Your task to perform on an android device: Go to location settings Image 0: 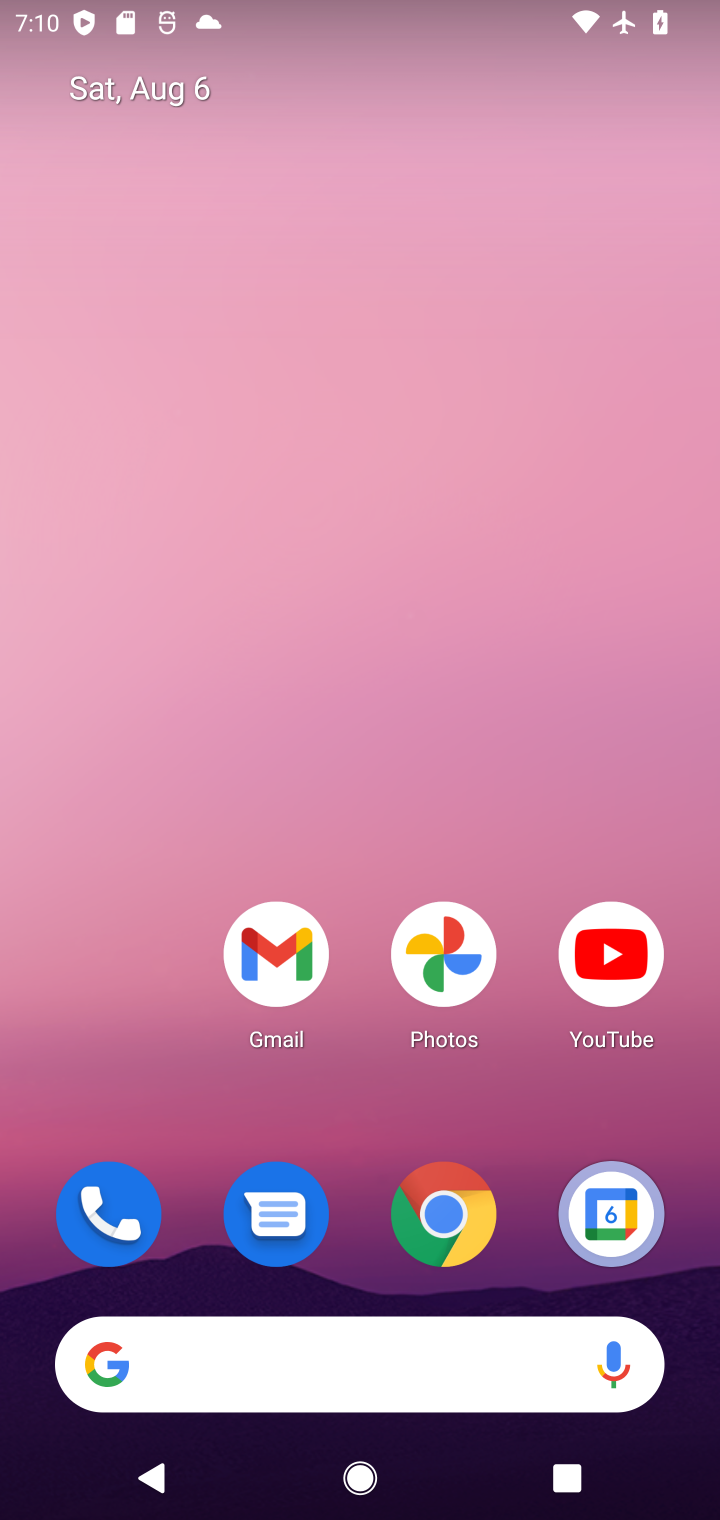
Step 0: drag from (360, 883) to (25, 1372)
Your task to perform on an android device: Go to location settings Image 1: 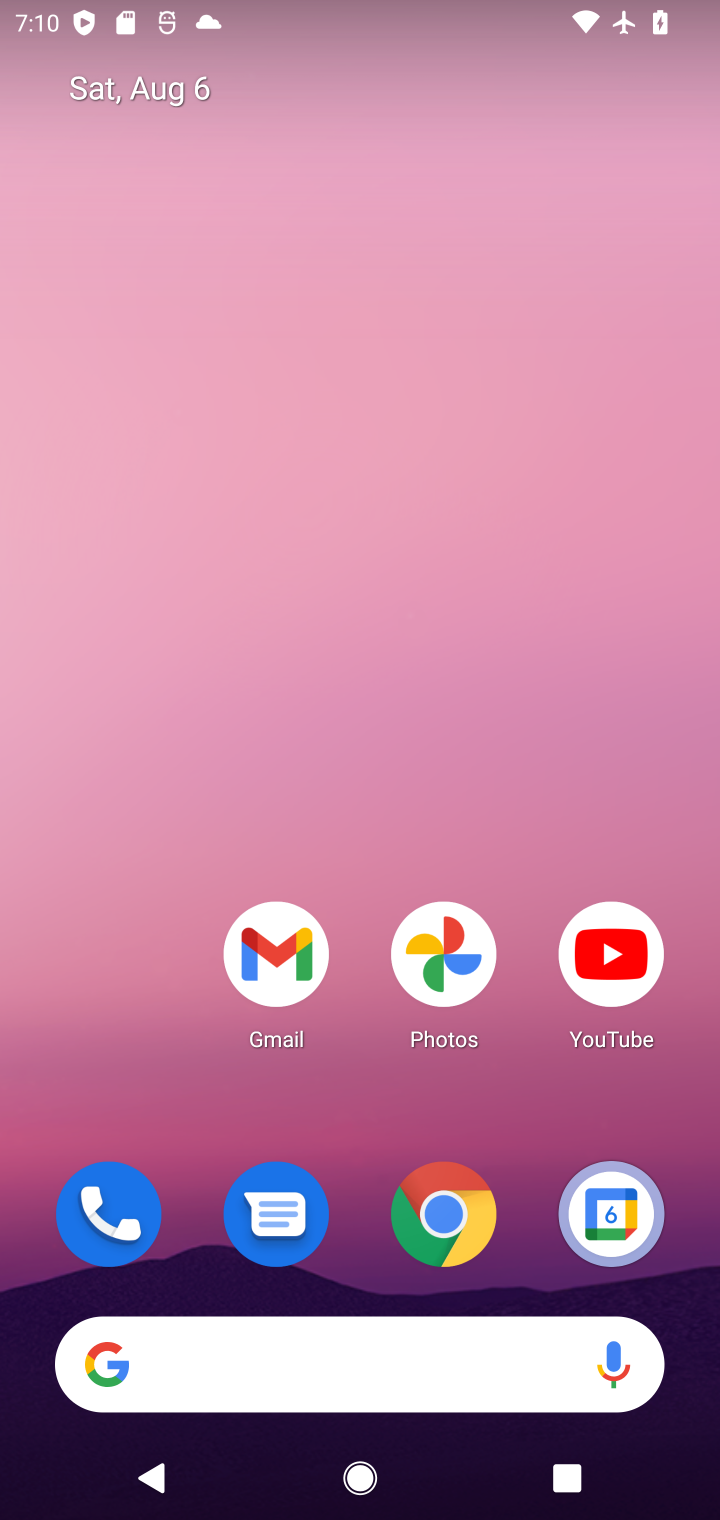
Step 1: drag from (333, 1258) to (185, 24)
Your task to perform on an android device: Go to location settings Image 2: 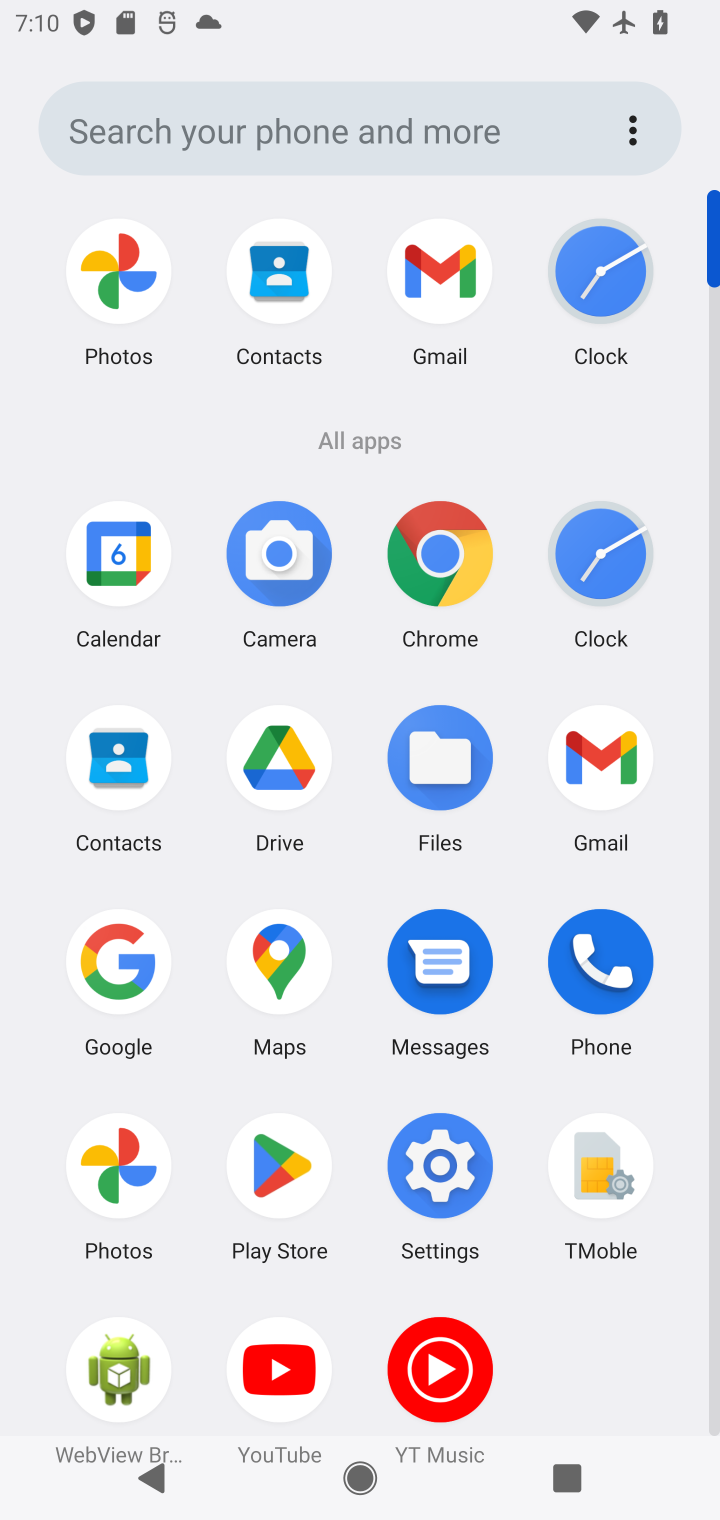
Step 2: click (441, 1141)
Your task to perform on an android device: Go to location settings Image 3: 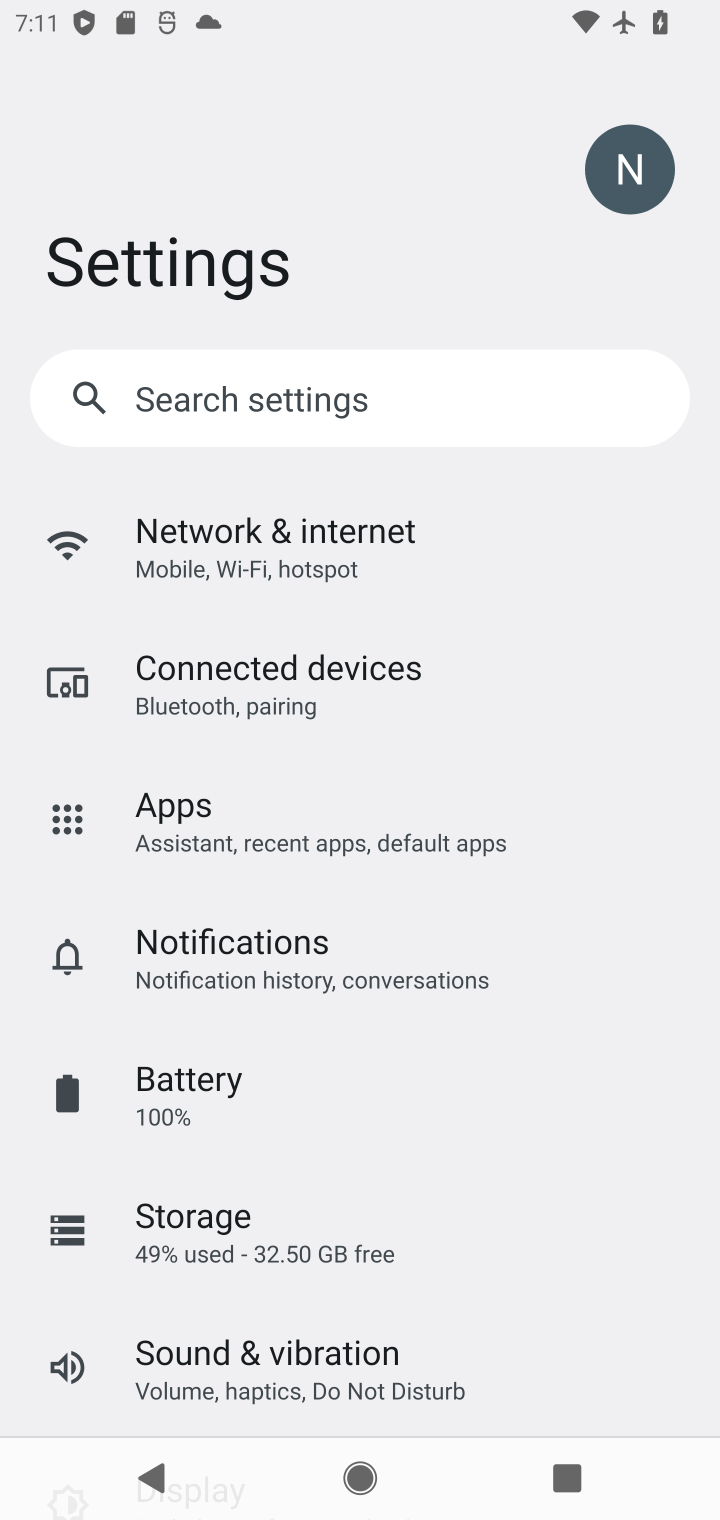
Step 3: drag from (383, 1277) to (417, 849)
Your task to perform on an android device: Go to location settings Image 4: 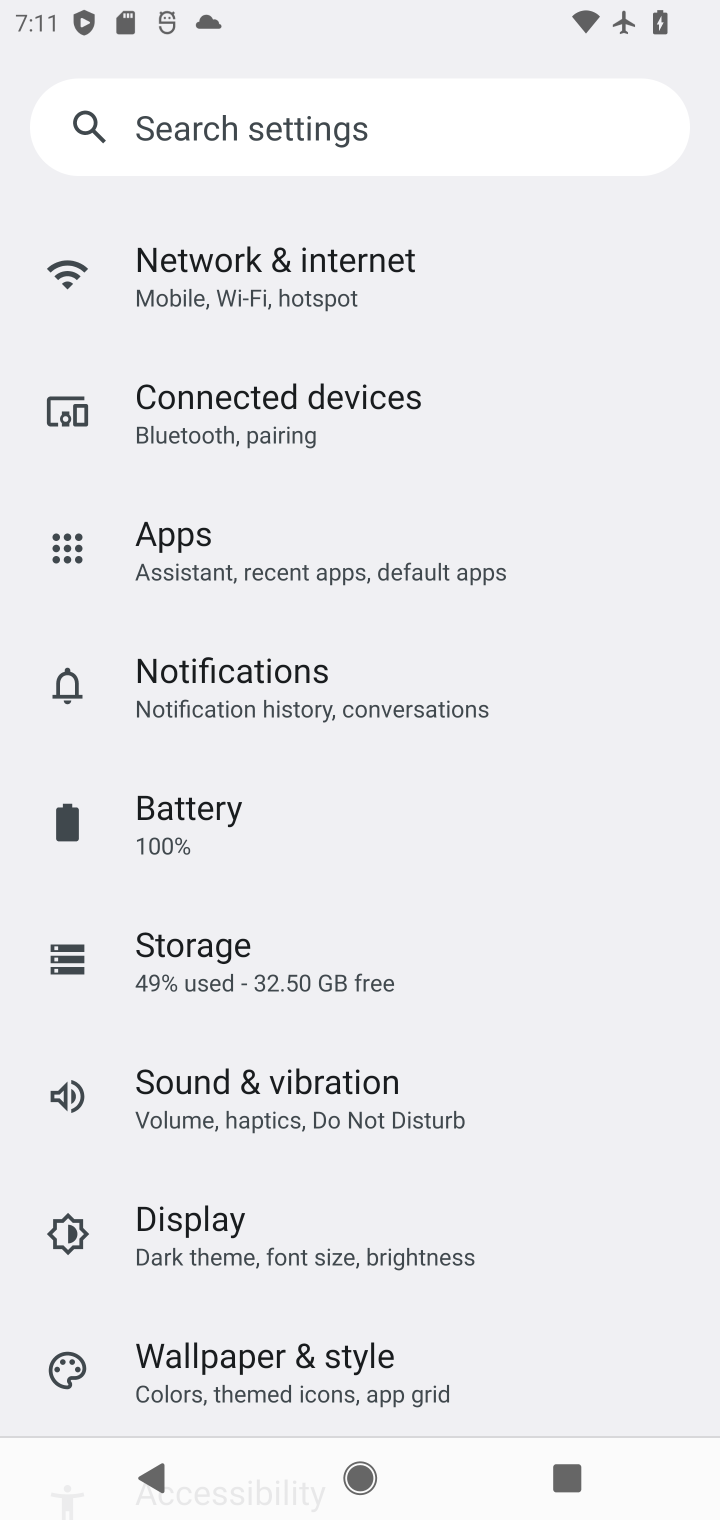
Step 4: drag from (361, 1185) to (378, 668)
Your task to perform on an android device: Go to location settings Image 5: 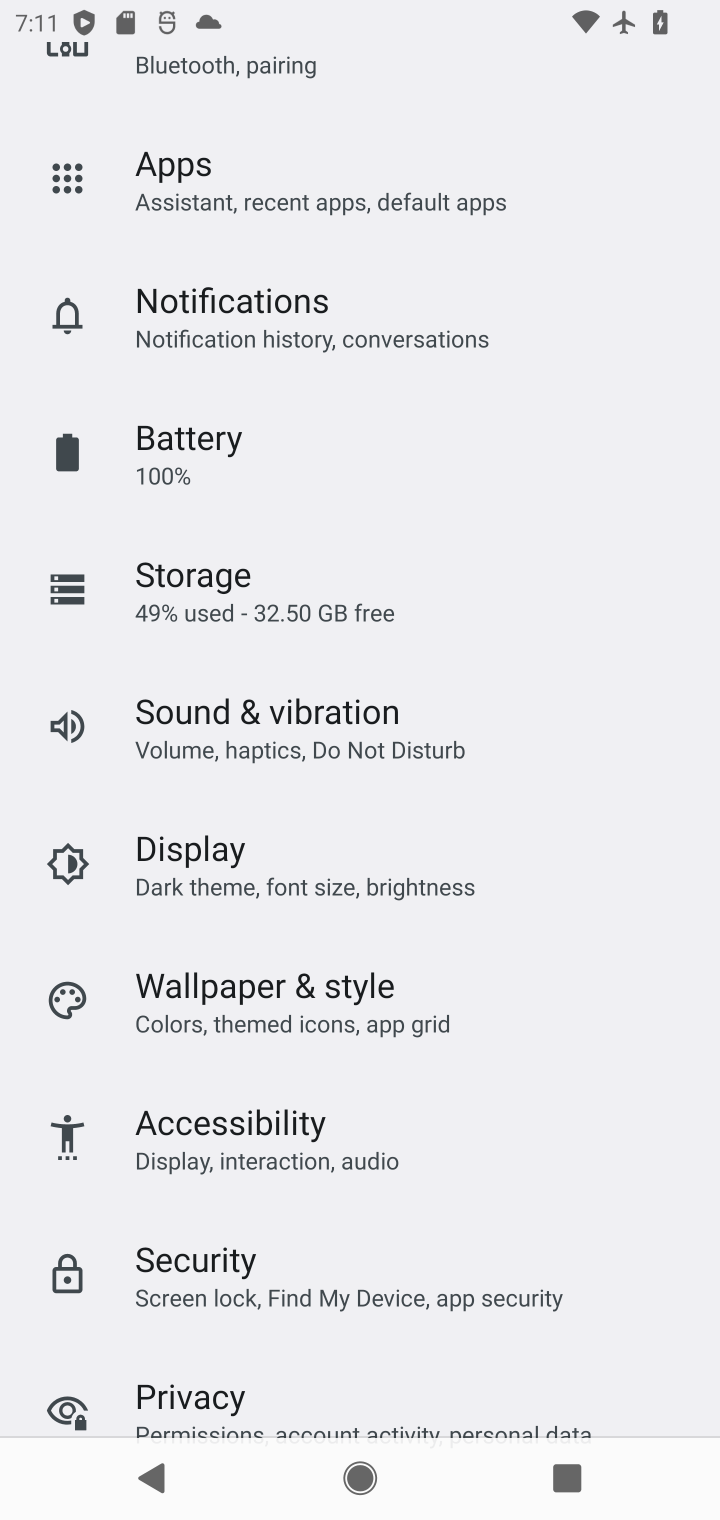
Step 5: drag from (250, 1342) to (271, 772)
Your task to perform on an android device: Go to location settings Image 6: 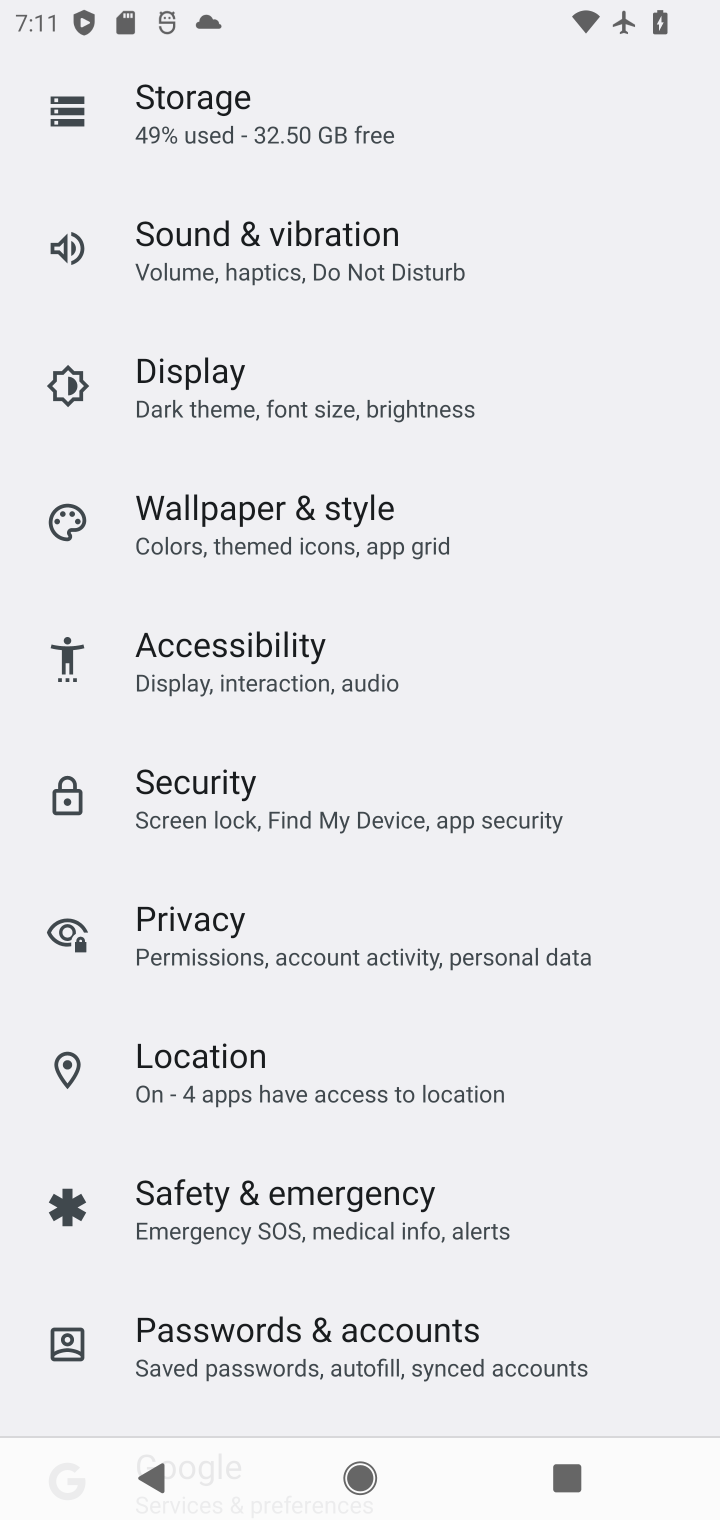
Step 6: drag from (255, 1339) to (333, 646)
Your task to perform on an android device: Go to location settings Image 7: 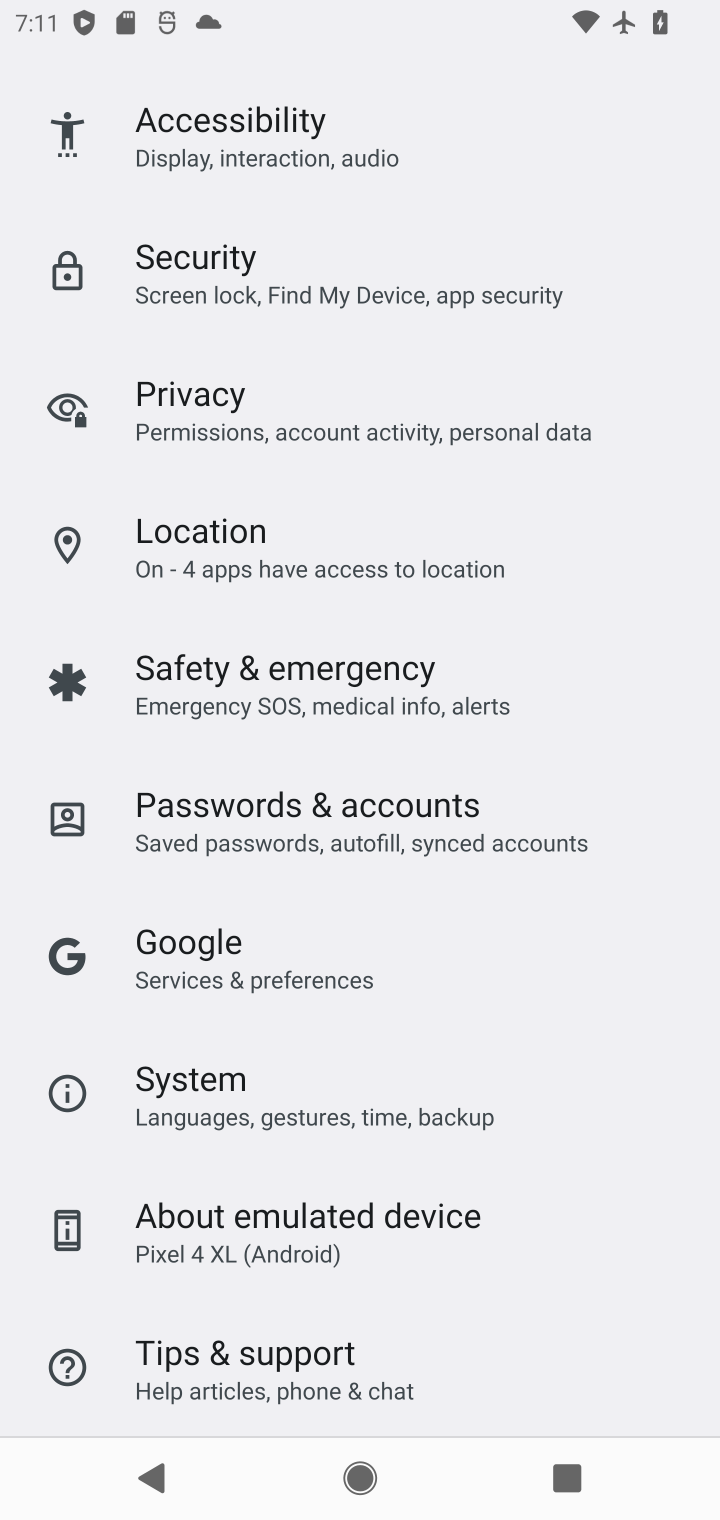
Step 7: click (259, 546)
Your task to perform on an android device: Go to location settings Image 8: 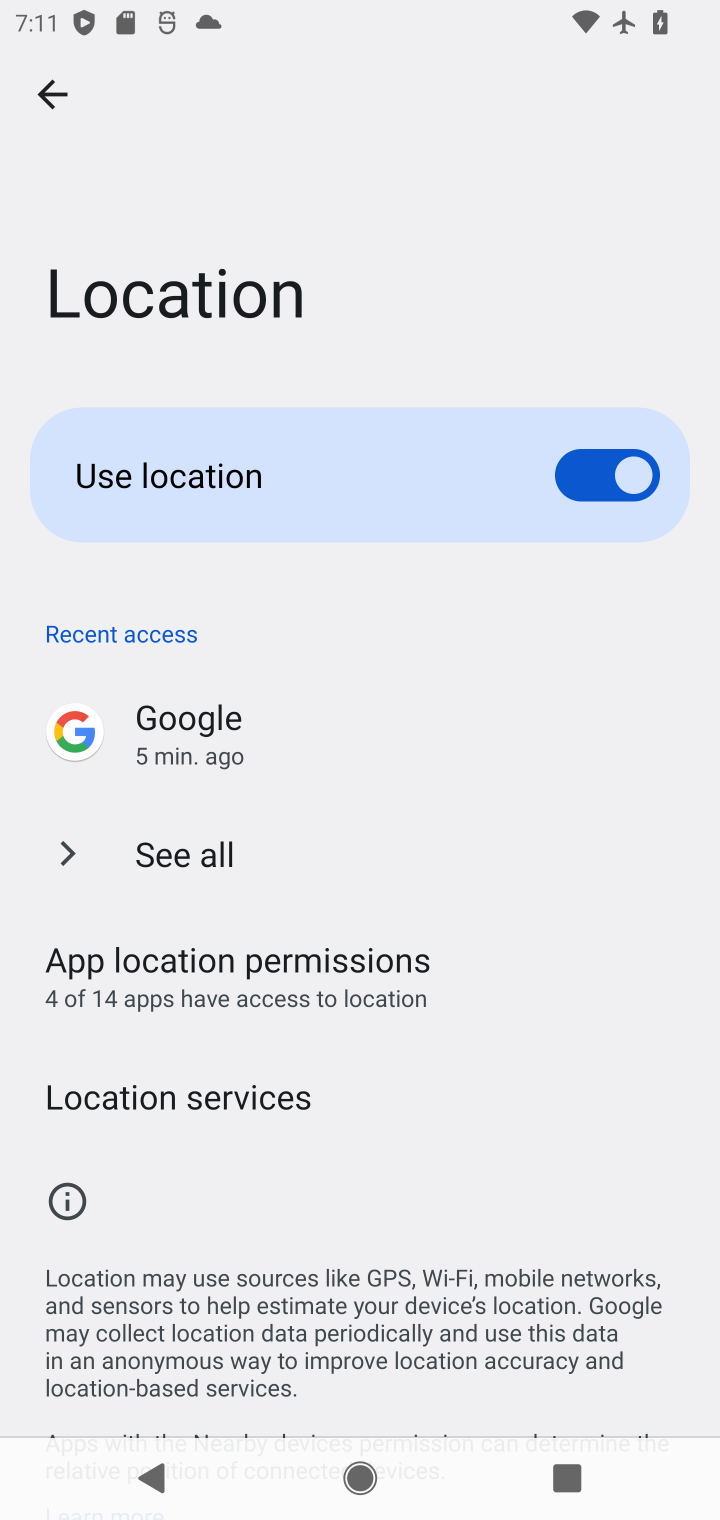
Step 8: task complete